Your task to perform on an android device: toggle translation in the chrome app Image 0: 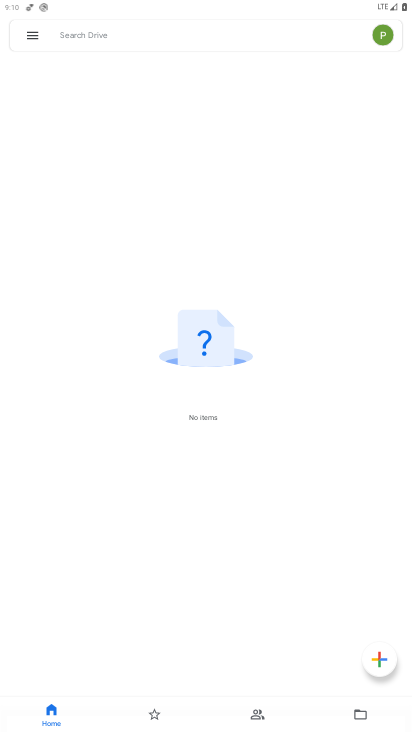
Step 0: press home button
Your task to perform on an android device: toggle translation in the chrome app Image 1: 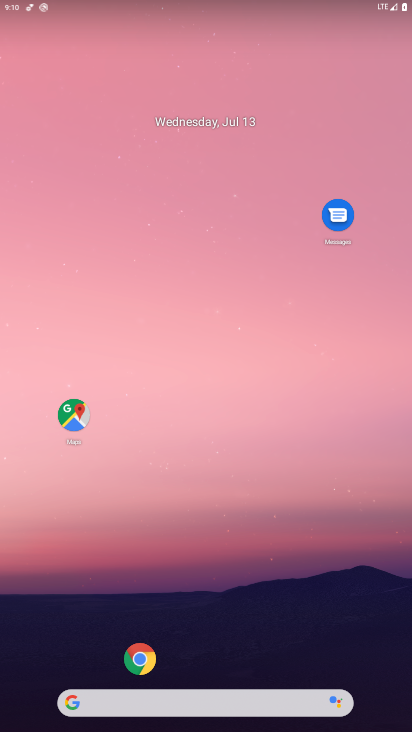
Step 1: click (131, 660)
Your task to perform on an android device: toggle translation in the chrome app Image 2: 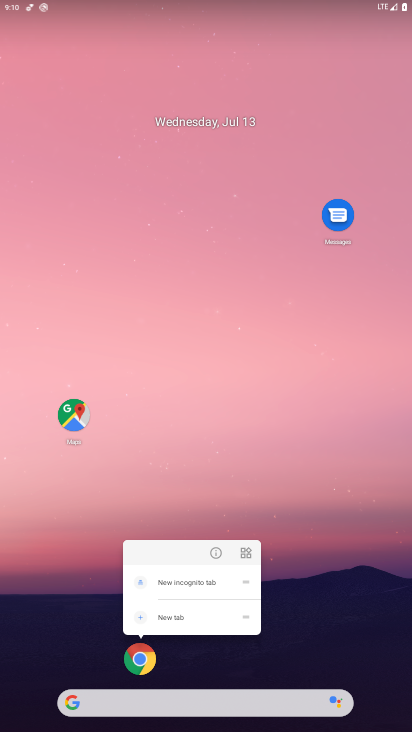
Step 2: click (140, 672)
Your task to perform on an android device: toggle translation in the chrome app Image 3: 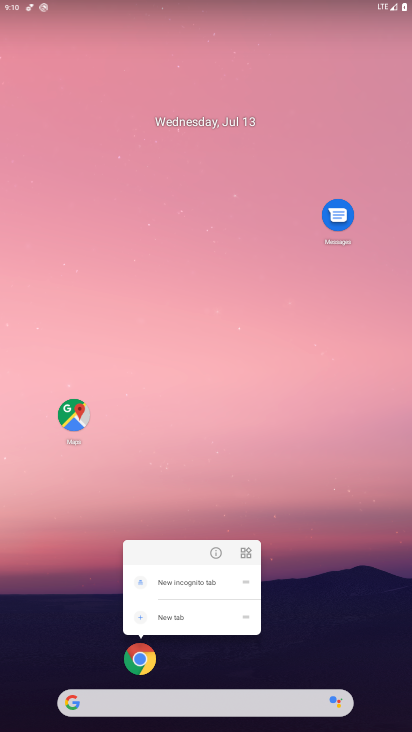
Step 3: task complete